Your task to perform on an android device: delete a single message in the gmail app Image 0: 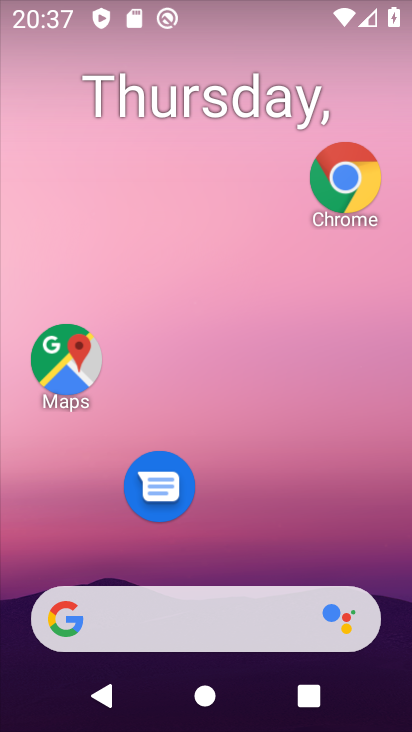
Step 0: drag from (212, 567) to (233, 6)
Your task to perform on an android device: delete a single message in the gmail app Image 1: 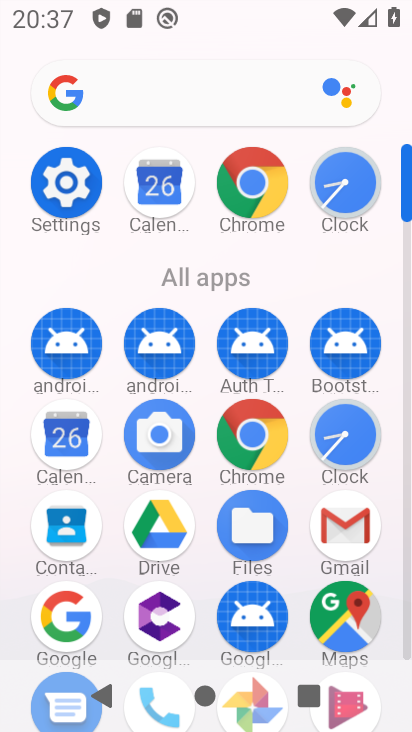
Step 1: click (338, 520)
Your task to perform on an android device: delete a single message in the gmail app Image 2: 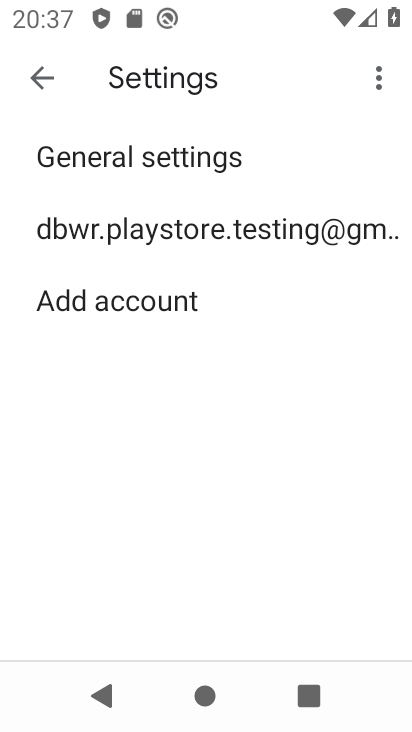
Step 2: click (27, 70)
Your task to perform on an android device: delete a single message in the gmail app Image 3: 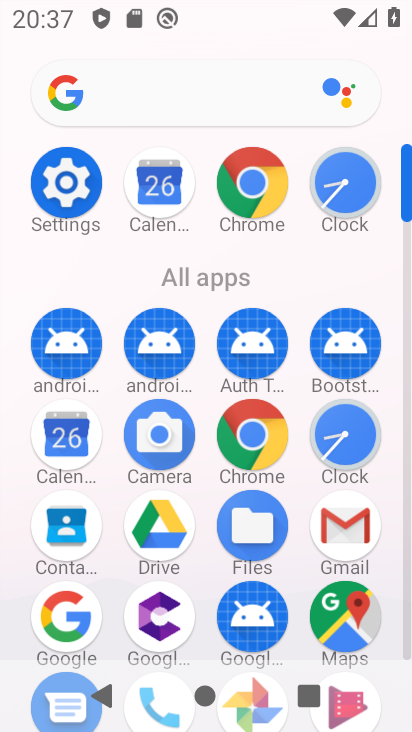
Step 3: click (354, 516)
Your task to perform on an android device: delete a single message in the gmail app Image 4: 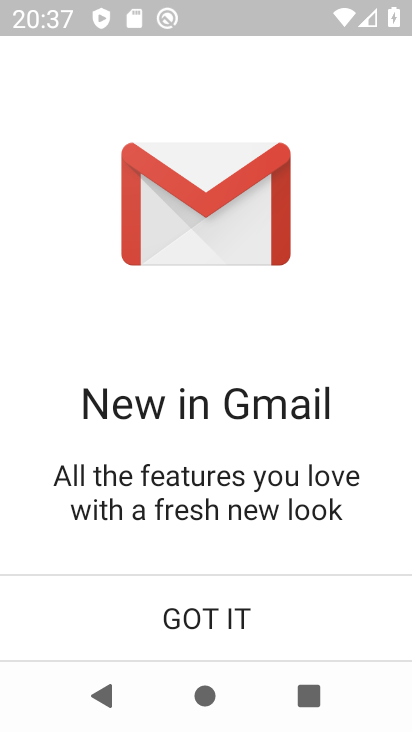
Step 4: click (176, 615)
Your task to perform on an android device: delete a single message in the gmail app Image 5: 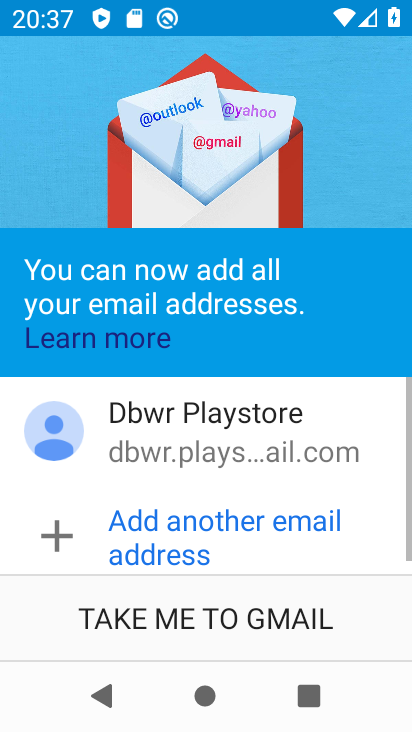
Step 5: click (176, 615)
Your task to perform on an android device: delete a single message in the gmail app Image 6: 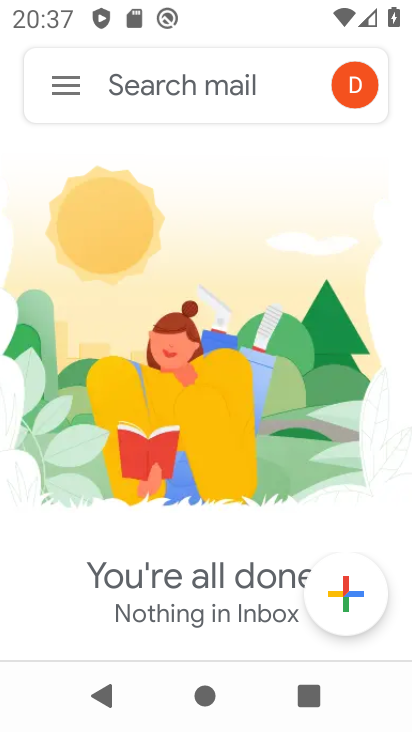
Step 6: task complete